Your task to perform on an android device: turn on showing notifications on the lock screen Image 0: 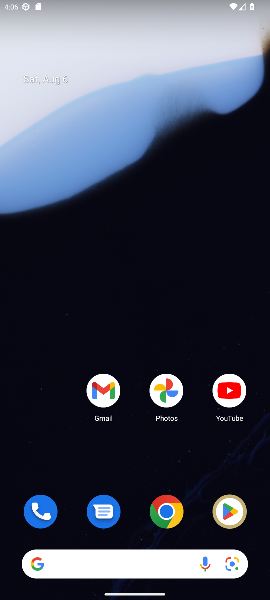
Step 0: drag from (132, 451) to (145, 5)
Your task to perform on an android device: turn on showing notifications on the lock screen Image 1: 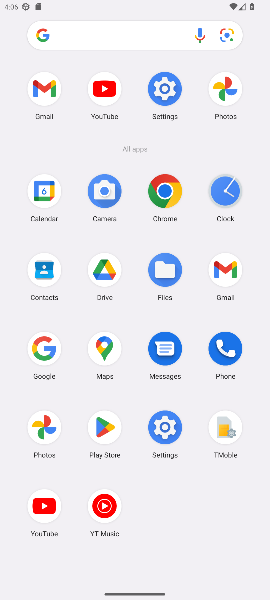
Step 1: click (163, 431)
Your task to perform on an android device: turn on showing notifications on the lock screen Image 2: 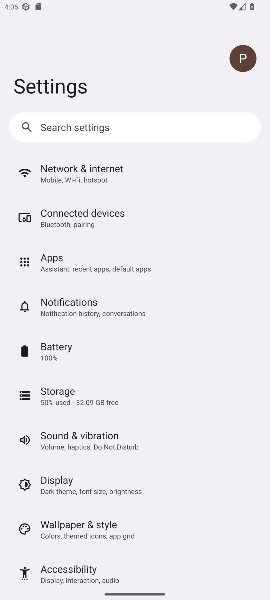
Step 2: click (88, 315)
Your task to perform on an android device: turn on showing notifications on the lock screen Image 3: 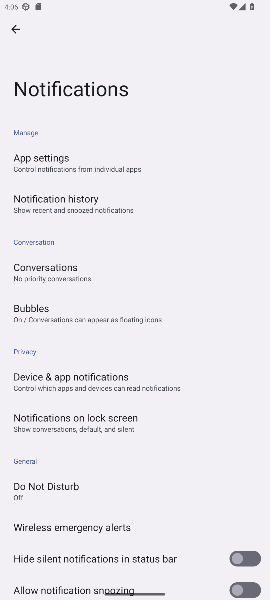
Step 3: drag from (96, 467) to (142, 261)
Your task to perform on an android device: turn on showing notifications on the lock screen Image 4: 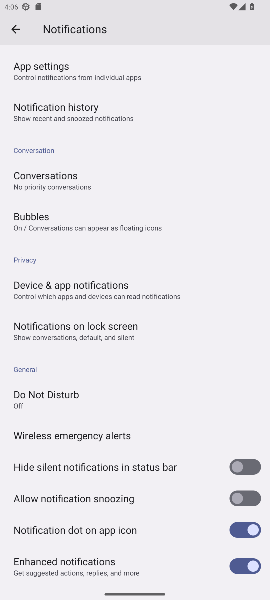
Step 4: click (72, 336)
Your task to perform on an android device: turn on showing notifications on the lock screen Image 5: 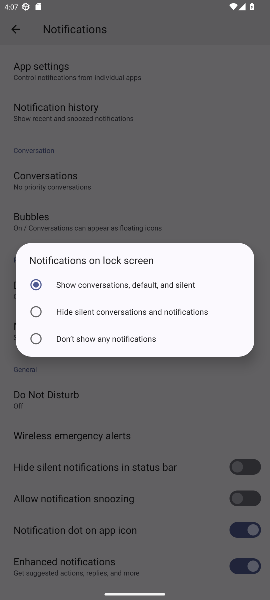
Step 5: task complete